Your task to perform on an android device: Open the calendar and show me this week's events? Image 0: 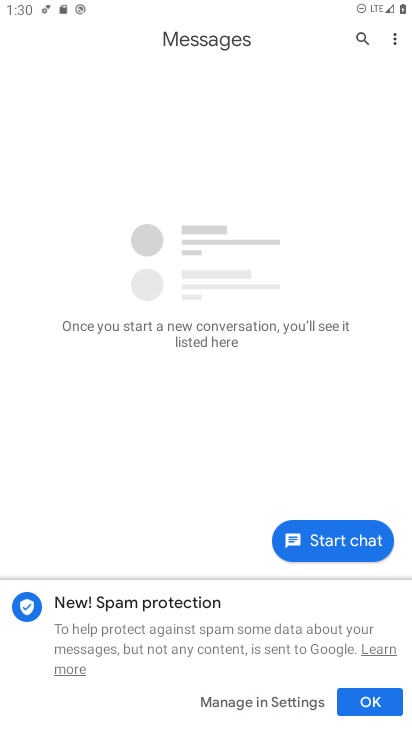
Step 0: press home button
Your task to perform on an android device: Open the calendar and show me this week's events? Image 1: 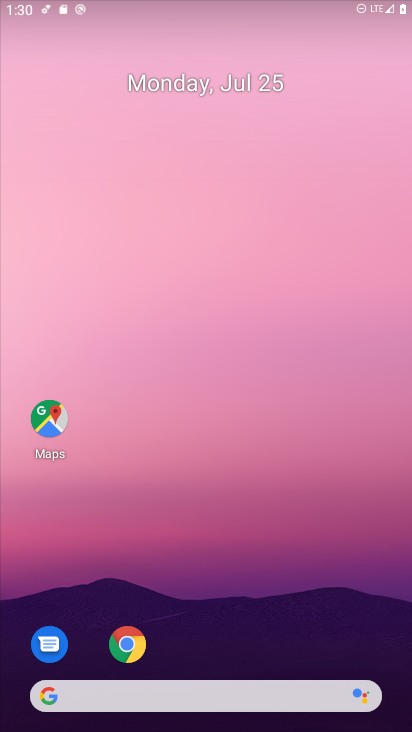
Step 1: drag from (215, 728) to (211, 232)
Your task to perform on an android device: Open the calendar and show me this week's events? Image 2: 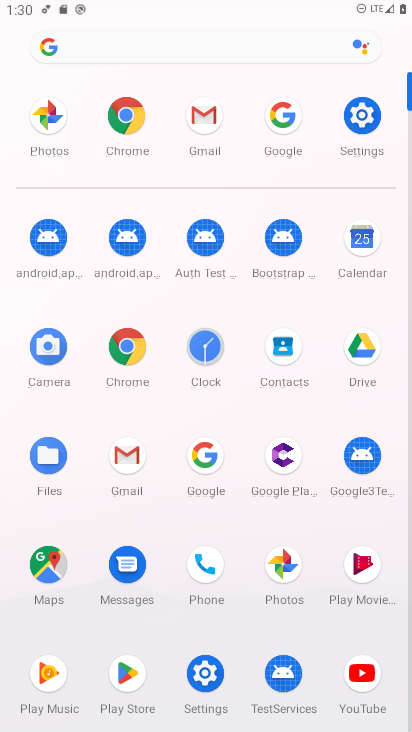
Step 2: click (364, 234)
Your task to perform on an android device: Open the calendar and show me this week's events? Image 3: 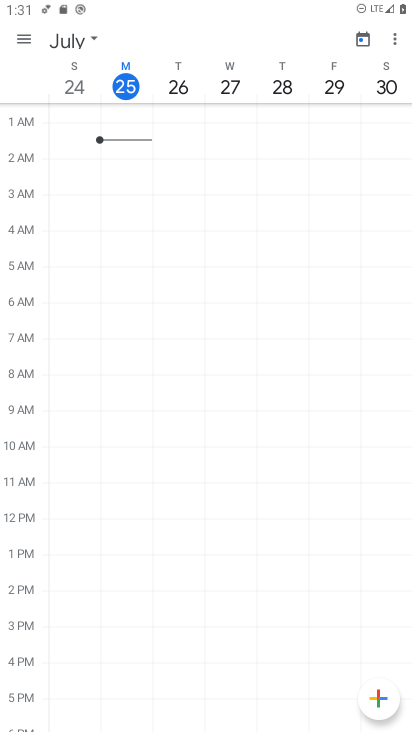
Step 3: click (32, 39)
Your task to perform on an android device: Open the calendar and show me this week's events? Image 4: 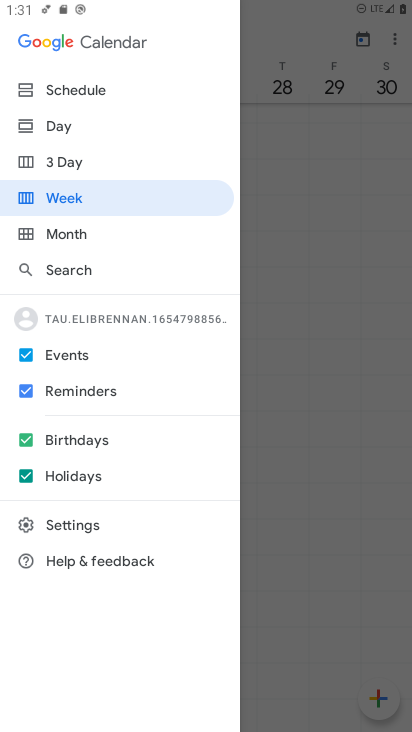
Step 4: click (344, 231)
Your task to perform on an android device: Open the calendar and show me this week's events? Image 5: 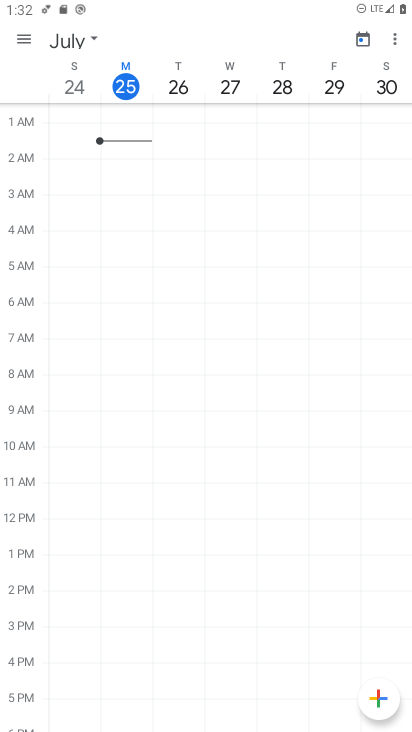
Step 5: click (26, 38)
Your task to perform on an android device: Open the calendar and show me this week's events? Image 6: 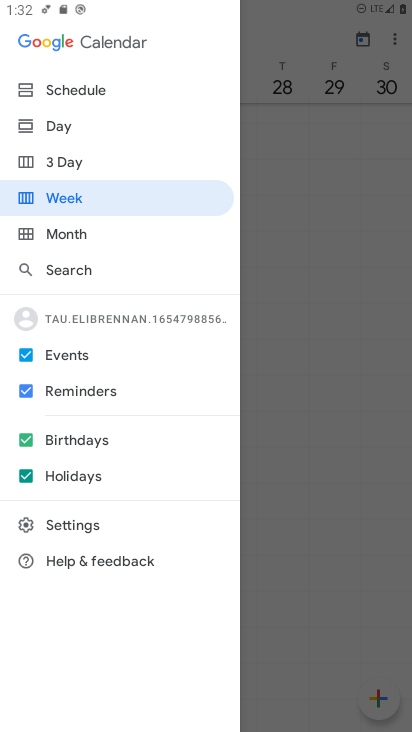
Step 6: click (26, 472)
Your task to perform on an android device: Open the calendar and show me this week's events? Image 7: 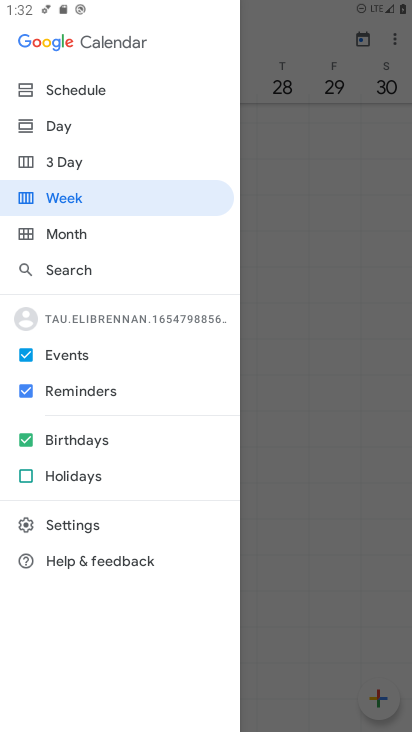
Step 7: click (25, 439)
Your task to perform on an android device: Open the calendar and show me this week's events? Image 8: 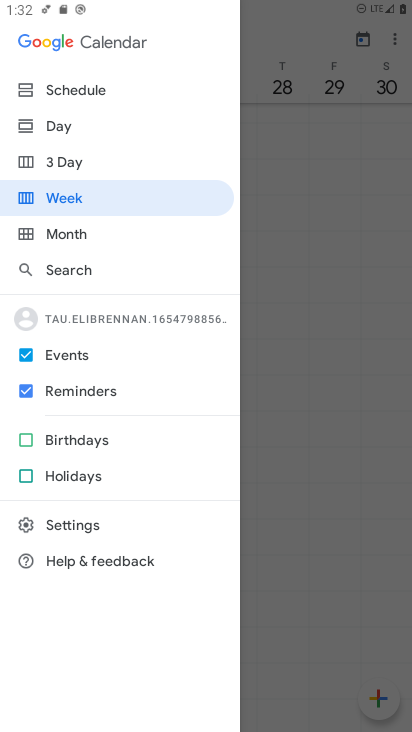
Step 8: click (31, 391)
Your task to perform on an android device: Open the calendar and show me this week's events? Image 9: 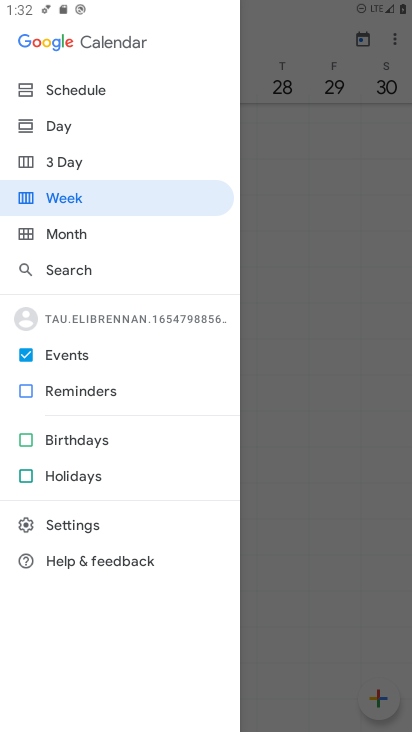
Step 9: click (89, 195)
Your task to perform on an android device: Open the calendar and show me this week's events? Image 10: 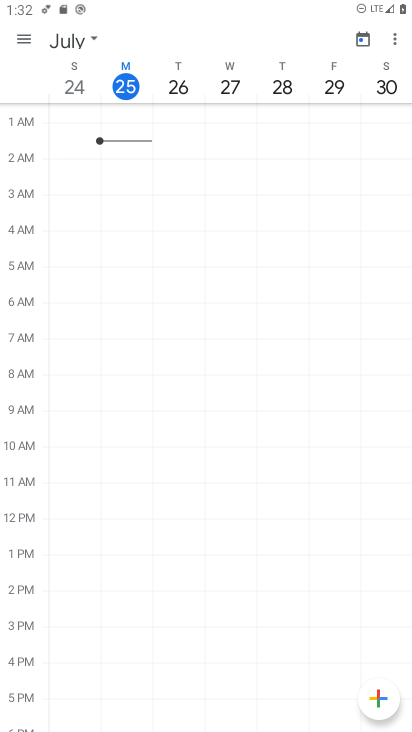
Step 10: task complete